Your task to perform on an android device: turn on wifi Image 0: 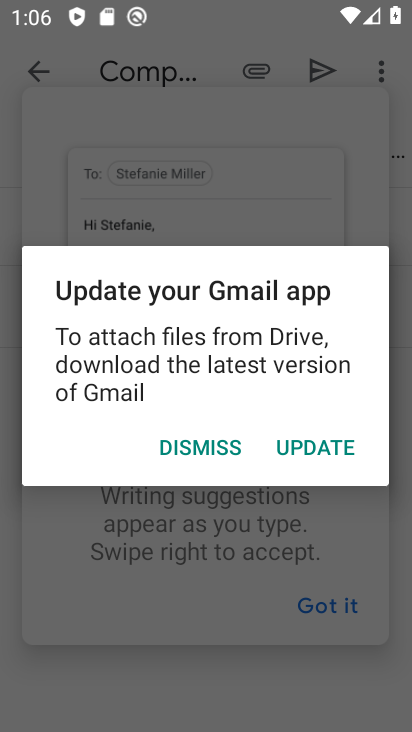
Step 0: press home button
Your task to perform on an android device: turn on wifi Image 1: 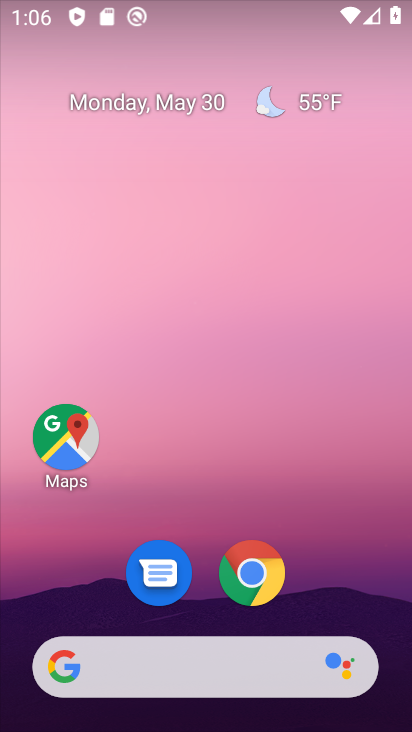
Step 1: drag from (327, 602) to (230, 147)
Your task to perform on an android device: turn on wifi Image 2: 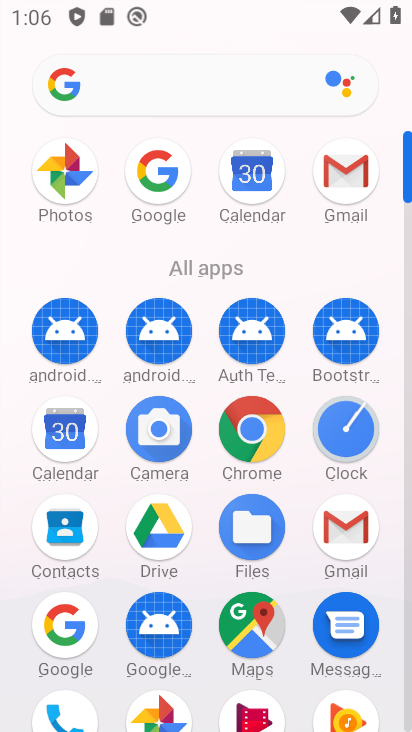
Step 2: drag from (296, 574) to (319, 351)
Your task to perform on an android device: turn on wifi Image 3: 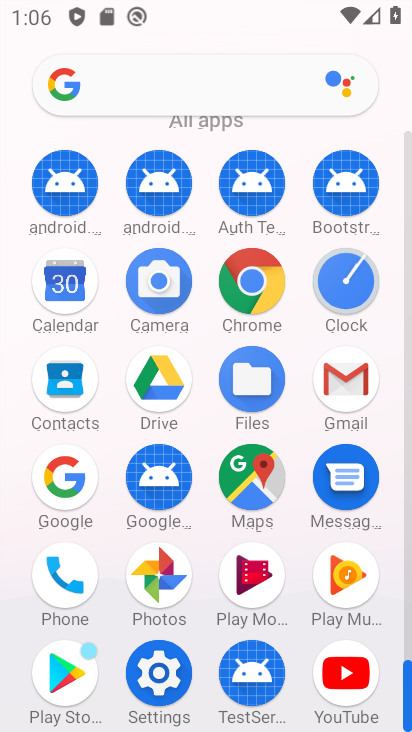
Step 3: click (159, 673)
Your task to perform on an android device: turn on wifi Image 4: 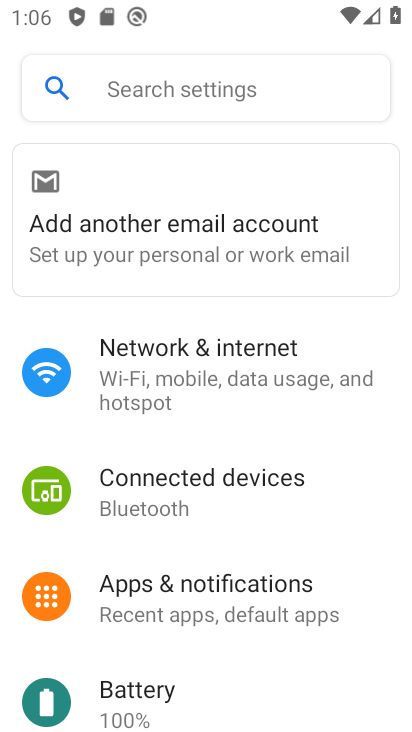
Step 4: click (172, 349)
Your task to perform on an android device: turn on wifi Image 5: 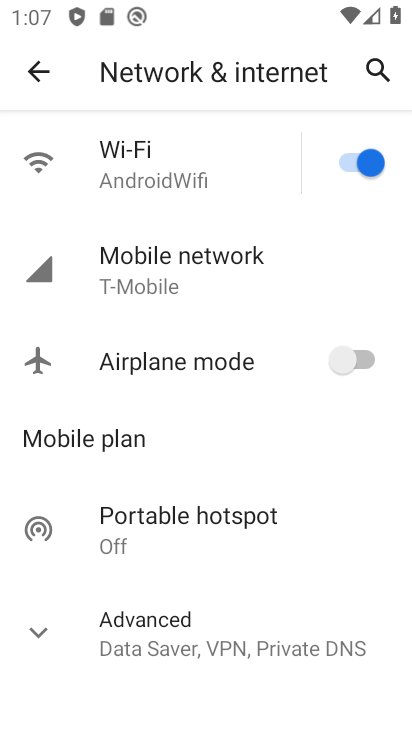
Step 5: task complete